Your task to perform on an android device: delete location history Image 0: 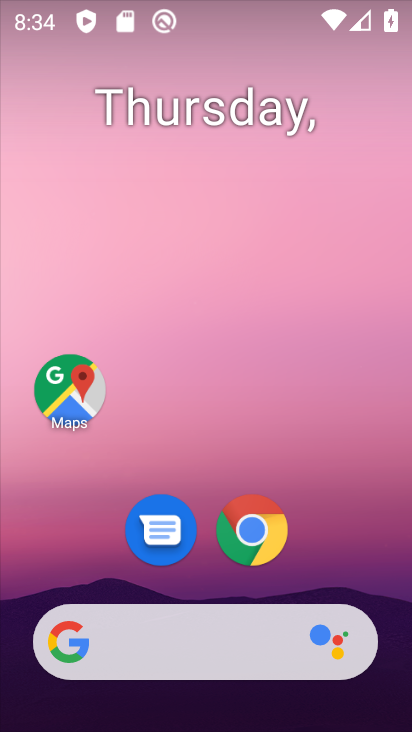
Step 0: drag from (275, 613) to (281, 54)
Your task to perform on an android device: delete location history Image 1: 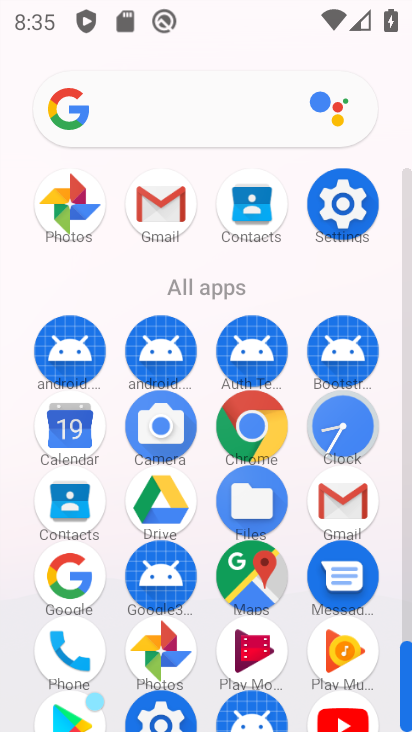
Step 1: click (332, 221)
Your task to perform on an android device: delete location history Image 2: 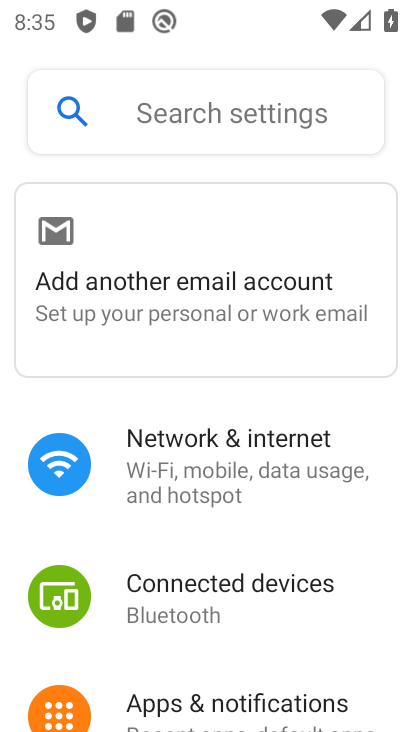
Step 2: drag from (268, 603) to (281, 256)
Your task to perform on an android device: delete location history Image 3: 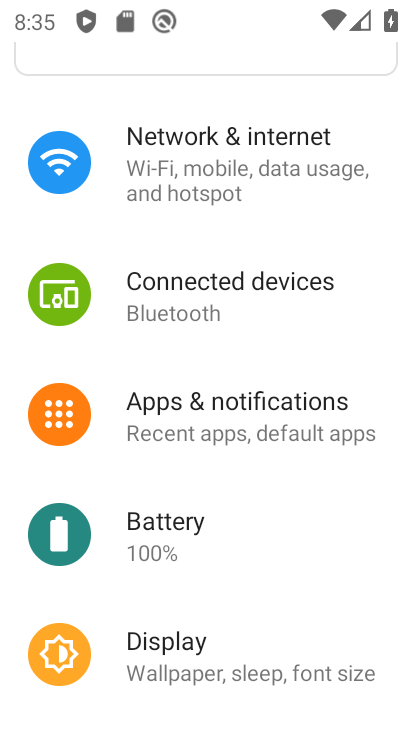
Step 3: drag from (233, 521) to (233, 288)
Your task to perform on an android device: delete location history Image 4: 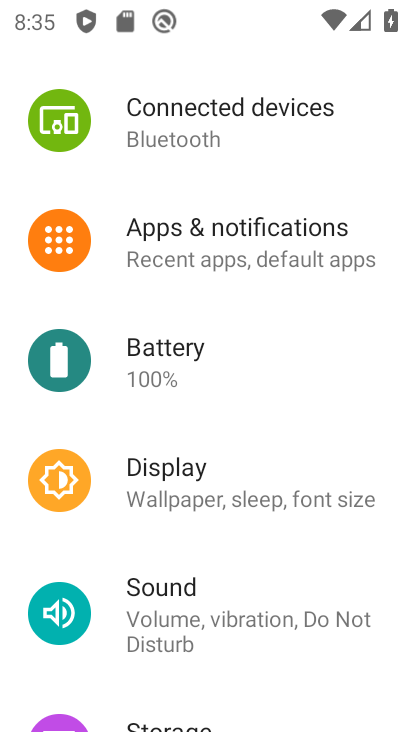
Step 4: drag from (235, 572) to (235, 242)
Your task to perform on an android device: delete location history Image 5: 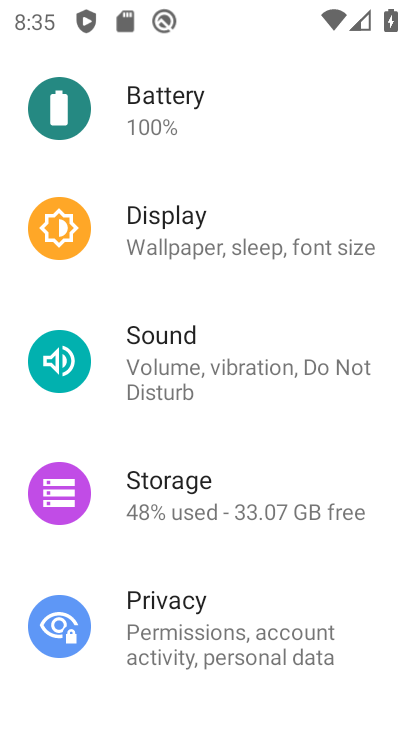
Step 5: drag from (222, 538) to (245, 232)
Your task to perform on an android device: delete location history Image 6: 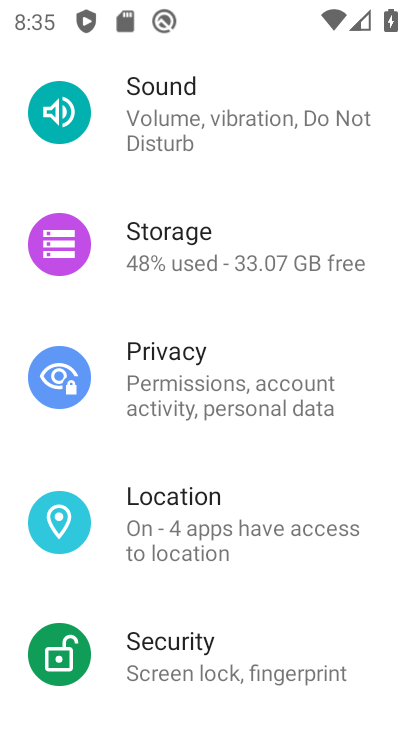
Step 6: click (238, 520)
Your task to perform on an android device: delete location history Image 7: 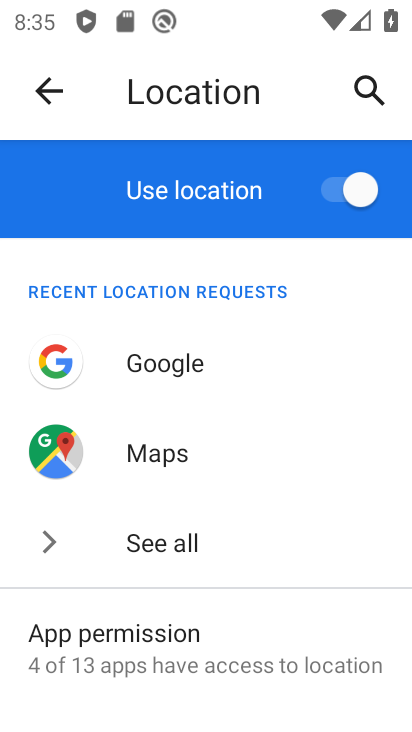
Step 7: drag from (233, 549) to (234, 217)
Your task to perform on an android device: delete location history Image 8: 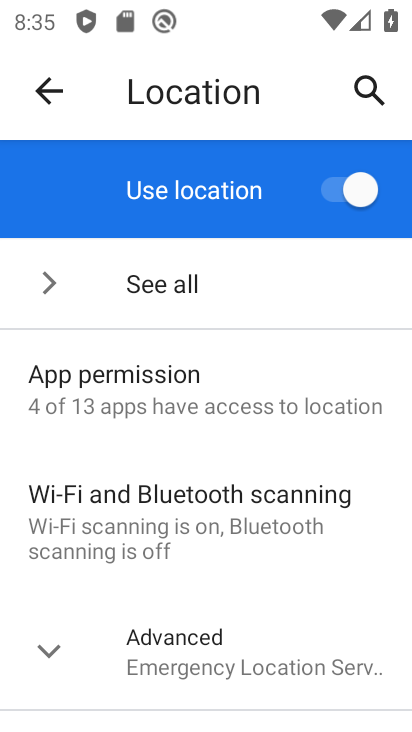
Step 8: click (235, 650)
Your task to perform on an android device: delete location history Image 9: 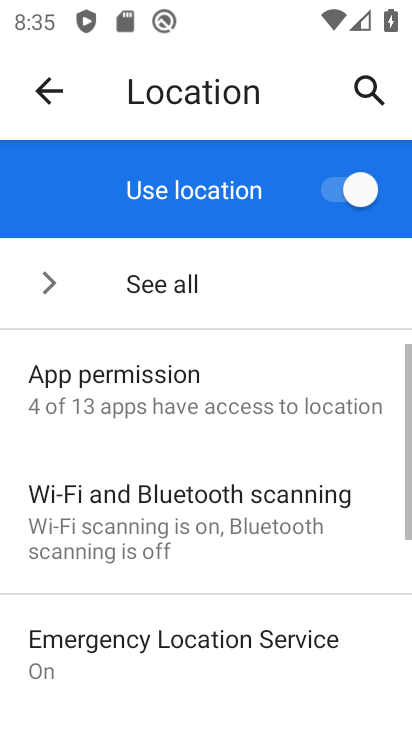
Step 9: drag from (268, 659) to (258, 109)
Your task to perform on an android device: delete location history Image 10: 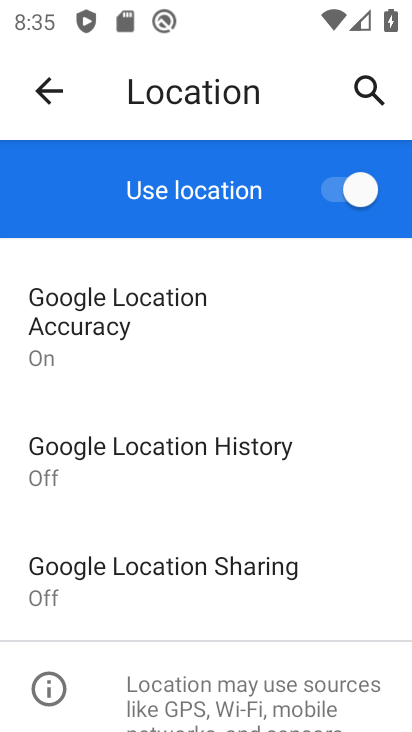
Step 10: click (259, 458)
Your task to perform on an android device: delete location history Image 11: 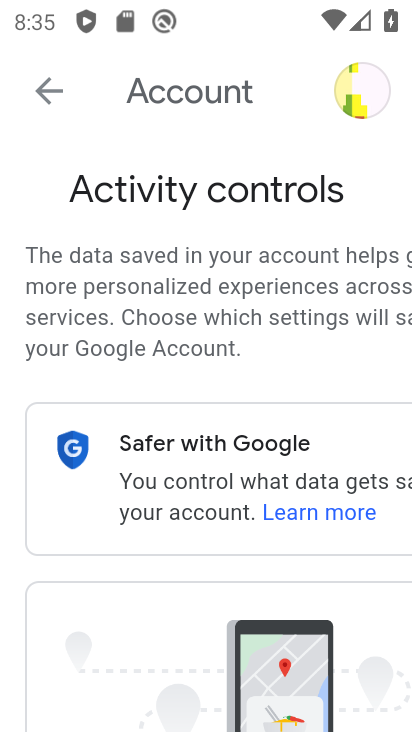
Step 11: drag from (328, 617) to (29, 185)
Your task to perform on an android device: delete location history Image 12: 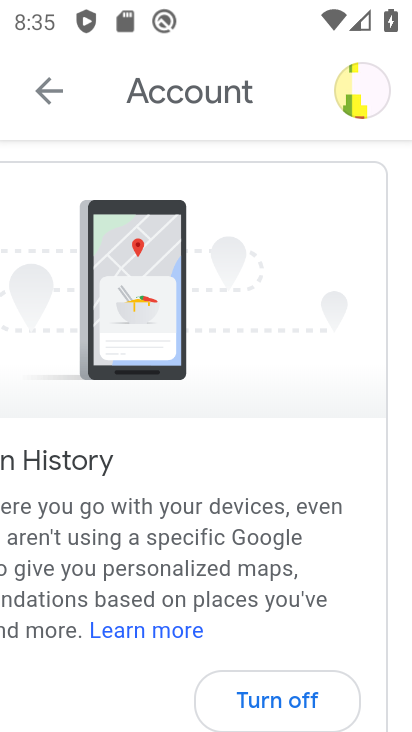
Step 12: drag from (260, 462) to (223, 308)
Your task to perform on an android device: delete location history Image 13: 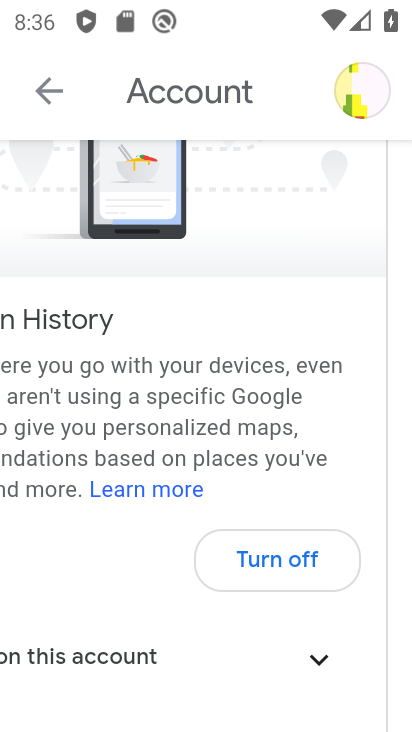
Step 13: drag from (149, 663) to (283, 294)
Your task to perform on an android device: delete location history Image 14: 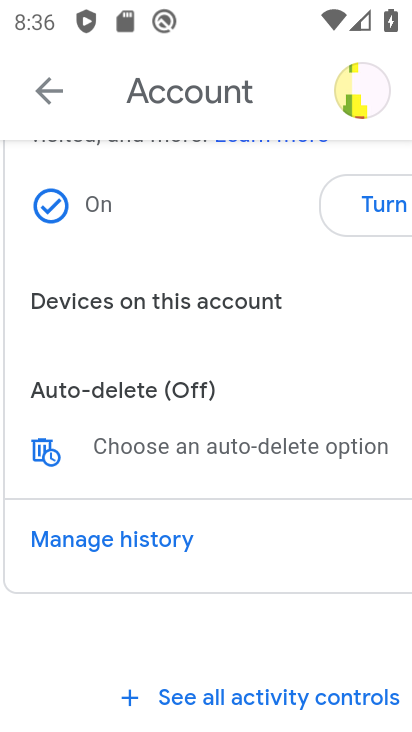
Step 14: click (271, 454)
Your task to perform on an android device: delete location history Image 15: 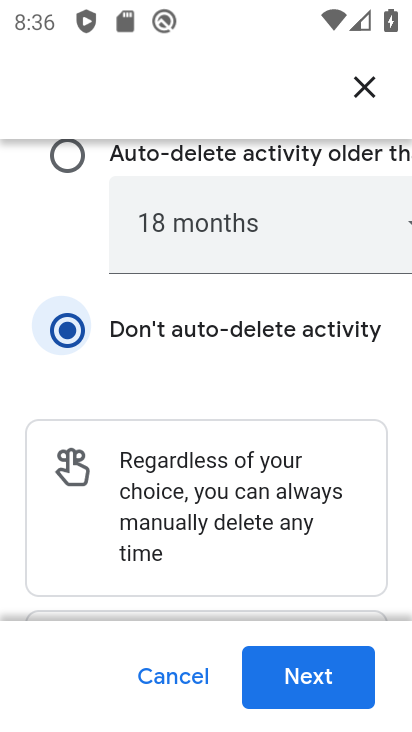
Step 15: click (352, 710)
Your task to perform on an android device: delete location history Image 16: 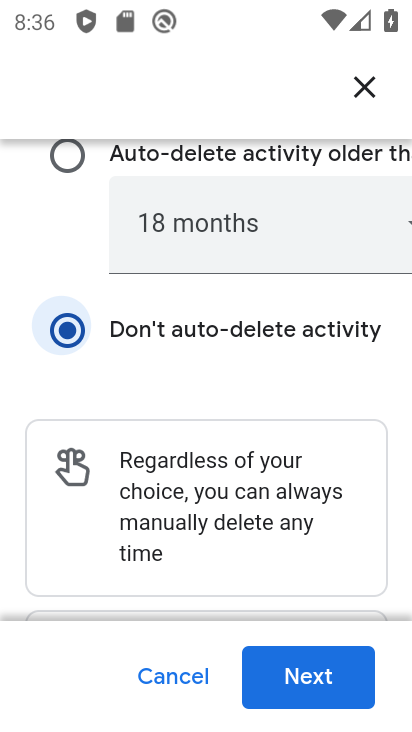
Step 16: click (346, 683)
Your task to perform on an android device: delete location history Image 17: 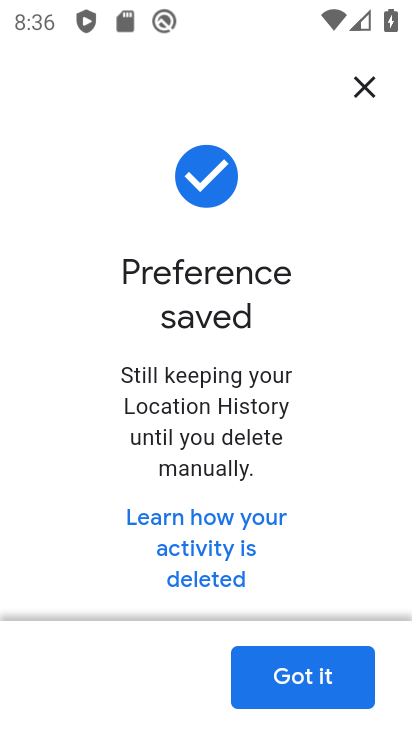
Step 17: click (342, 674)
Your task to perform on an android device: delete location history Image 18: 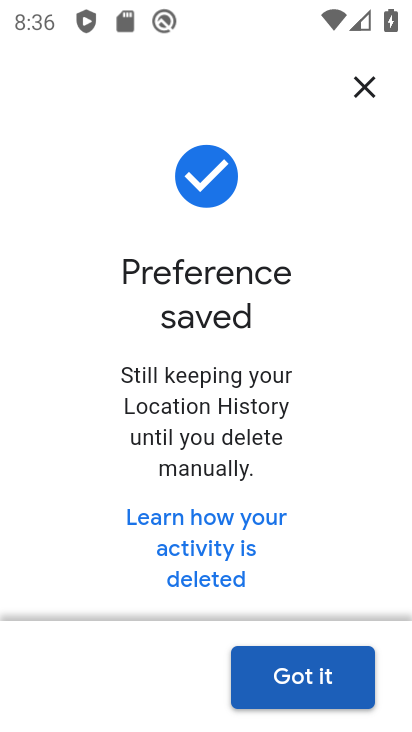
Step 18: click (314, 682)
Your task to perform on an android device: delete location history Image 19: 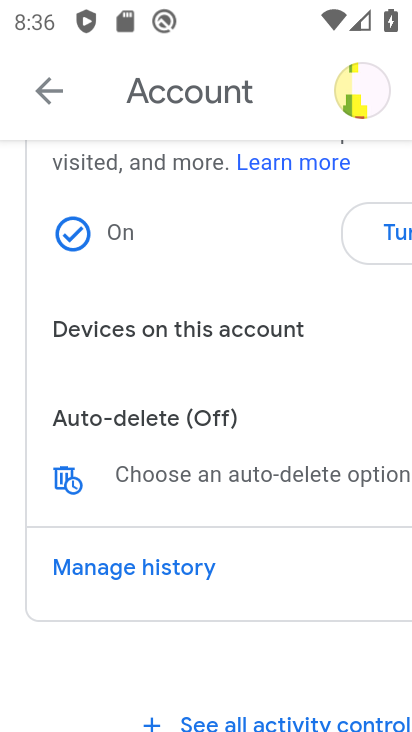
Step 19: task complete